Your task to perform on an android device: find snoozed emails in the gmail app Image 0: 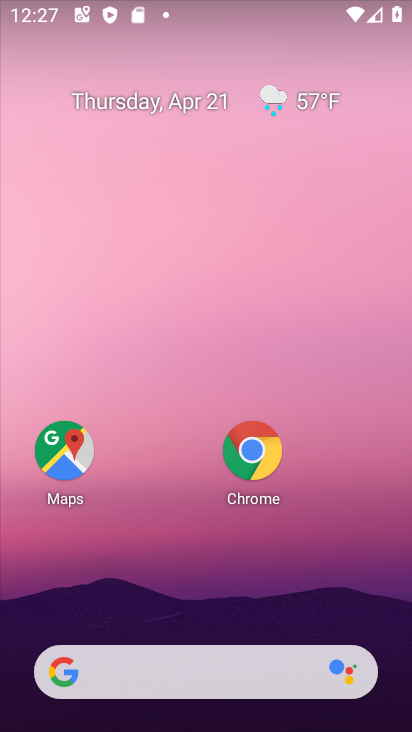
Step 0: click (184, 225)
Your task to perform on an android device: find snoozed emails in the gmail app Image 1: 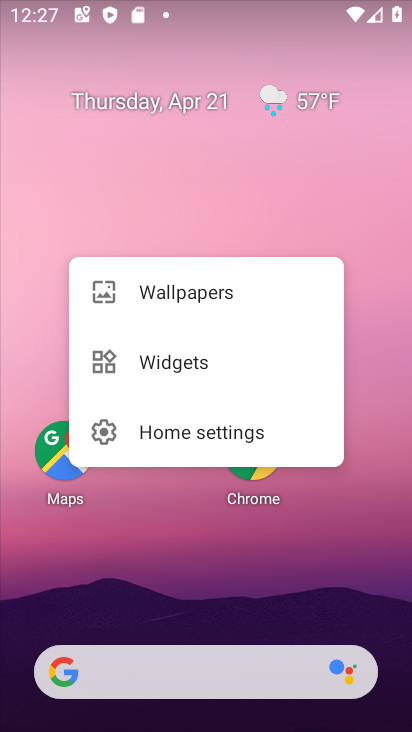
Step 1: drag from (182, 628) to (268, 99)
Your task to perform on an android device: find snoozed emails in the gmail app Image 2: 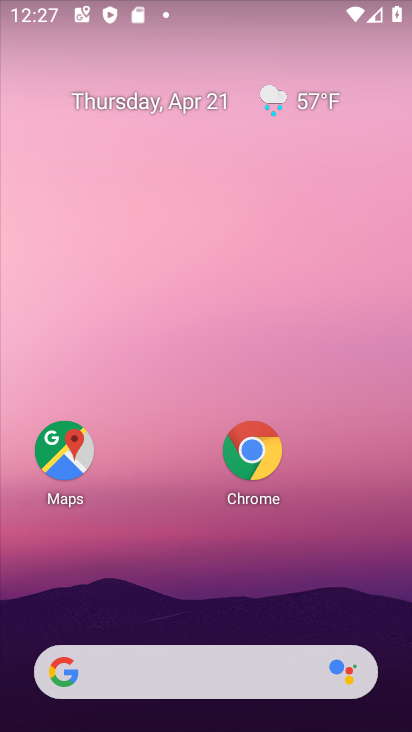
Step 2: drag from (132, 626) to (199, 45)
Your task to perform on an android device: find snoozed emails in the gmail app Image 3: 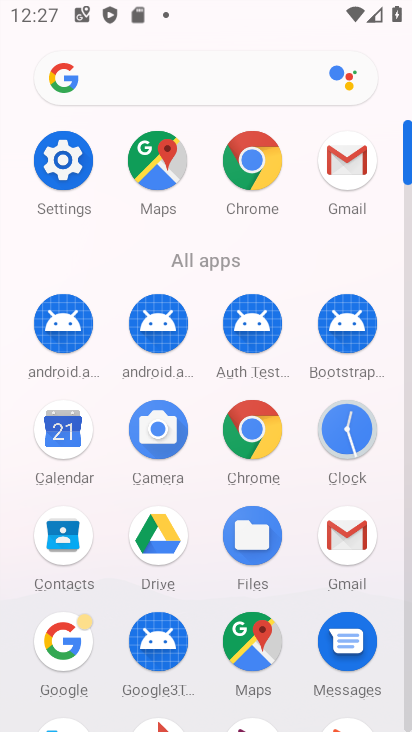
Step 3: click (336, 166)
Your task to perform on an android device: find snoozed emails in the gmail app Image 4: 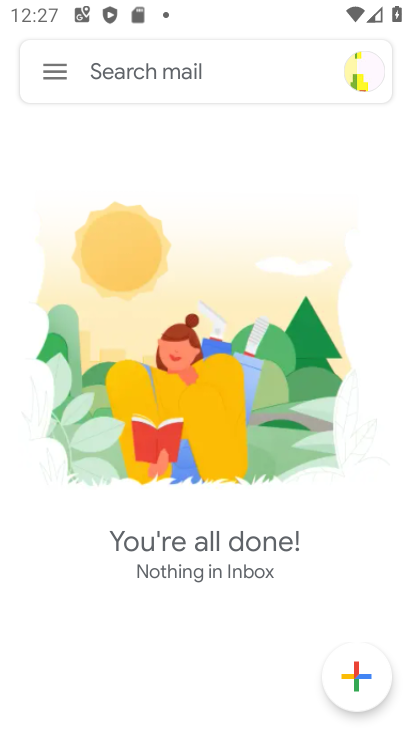
Step 4: click (53, 97)
Your task to perform on an android device: find snoozed emails in the gmail app Image 5: 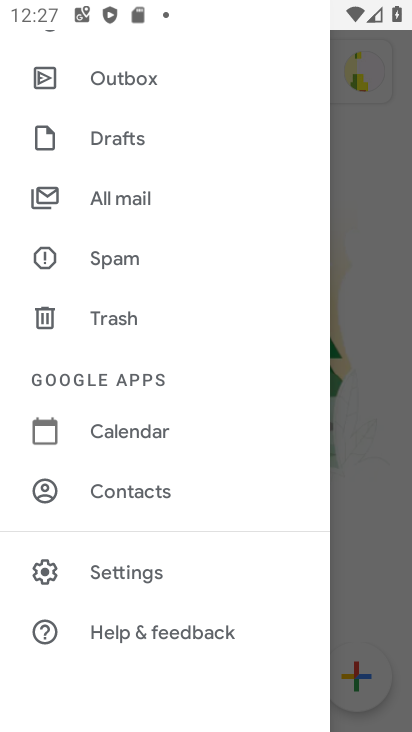
Step 5: drag from (191, 93) to (177, 635)
Your task to perform on an android device: find snoozed emails in the gmail app Image 6: 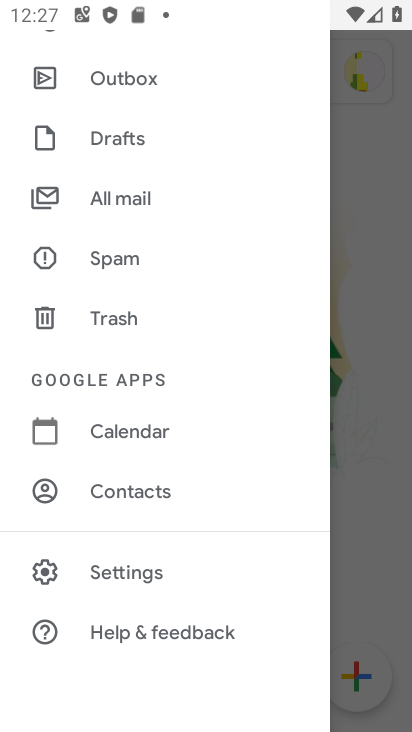
Step 6: drag from (173, 134) to (173, 716)
Your task to perform on an android device: find snoozed emails in the gmail app Image 7: 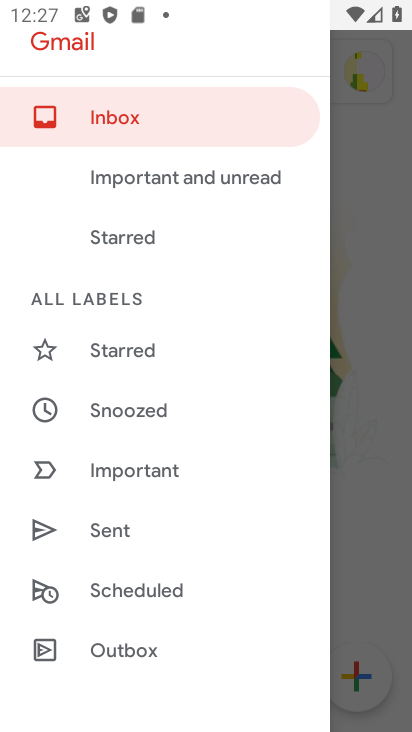
Step 7: click (131, 408)
Your task to perform on an android device: find snoozed emails in the gmail app Image 8: 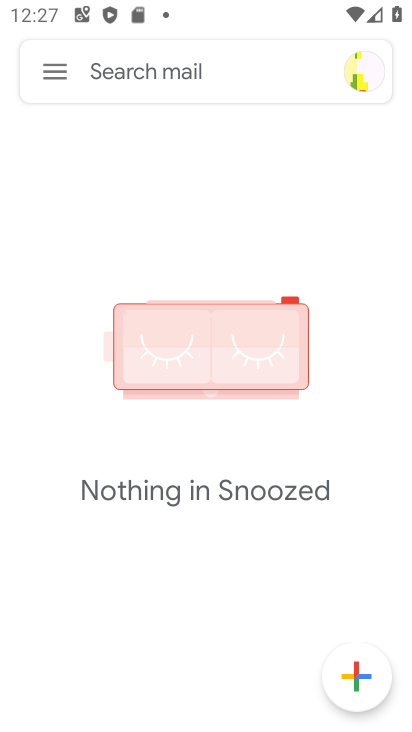
Step 8: task complete